Your task to perform on an android device: Go to wifi settings Image 0: 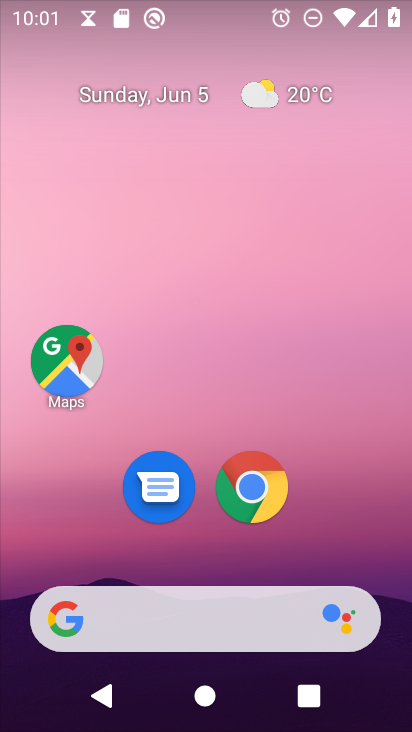
Step 0: drag from (353, 242) to (351, 201)
Your task to perform on an android device: Go to wifi settings Image 1: 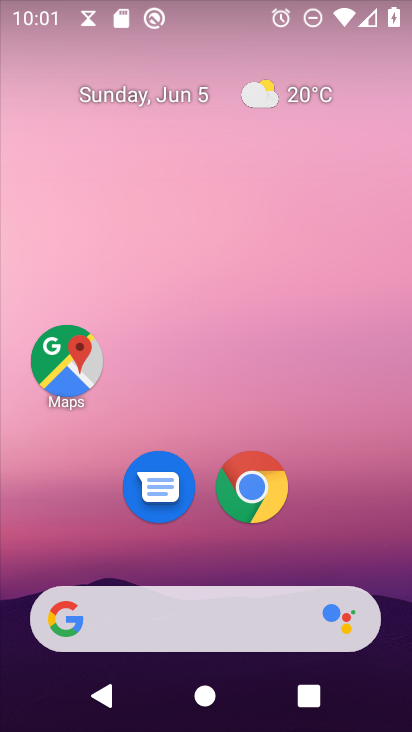
Step 1: drag from (228, 385) to (275, 103)
Your task to perform on an android device: Go to wifi settings Image 2: 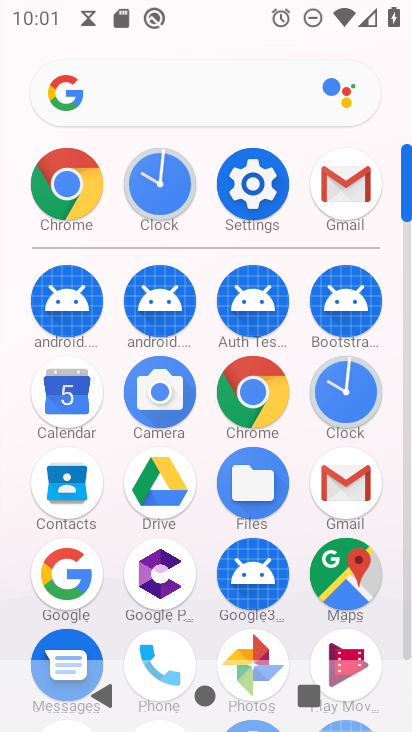
Step 2: click (253, 176)
Your task to perform on an android device: Go to wifi settings Image 3: 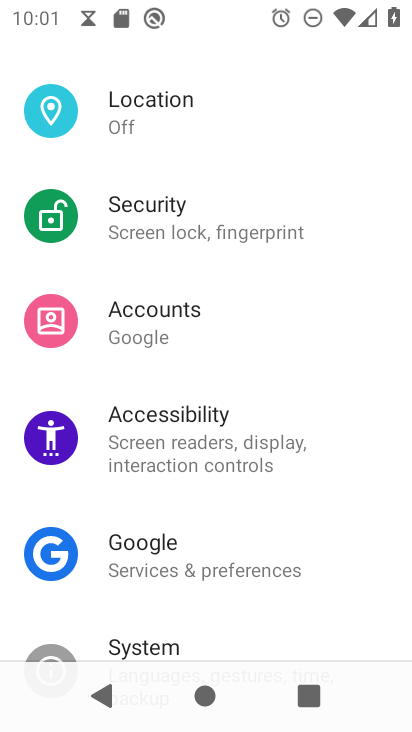
Step 3: drag from (193, 135) to (195, 604)
Your task to perform on an android device: Go to wifi settings Image 4: 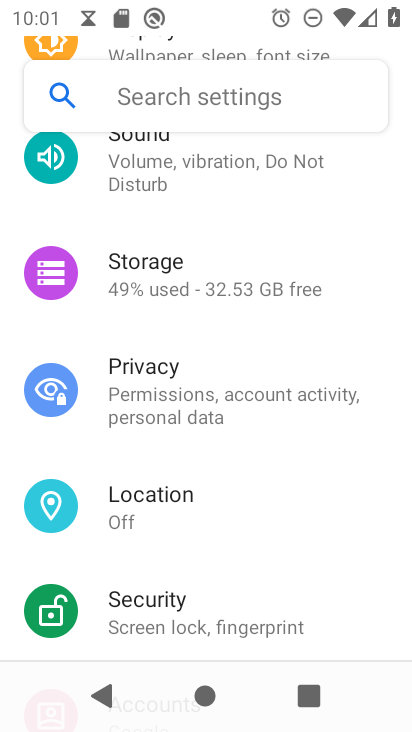
Step 4: drag from (199, 217) to (203, 586)
Your task to perform on an android device: Go to wifi settings Image 5: 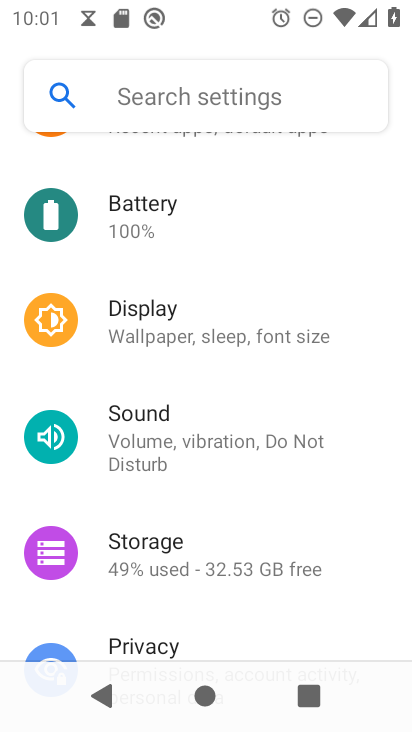
Step 5: drag from (172, 196) to (205, 589)
Your task to perform on an android device: Go to wifi settings Image 6: 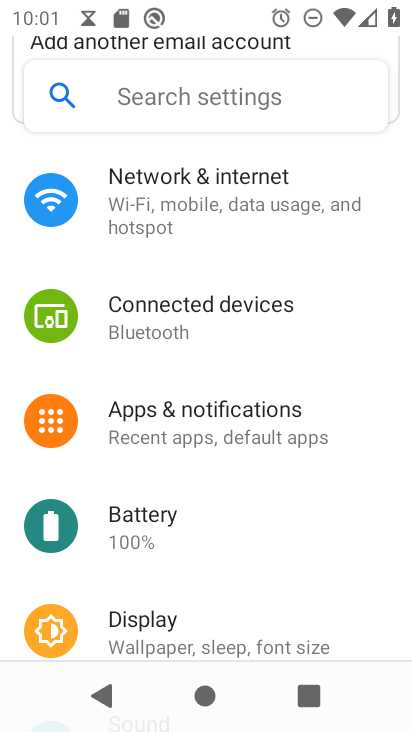
Step 6: click (230, 191)
Your task to perform on an android device: Go to wifi settings Image 7: 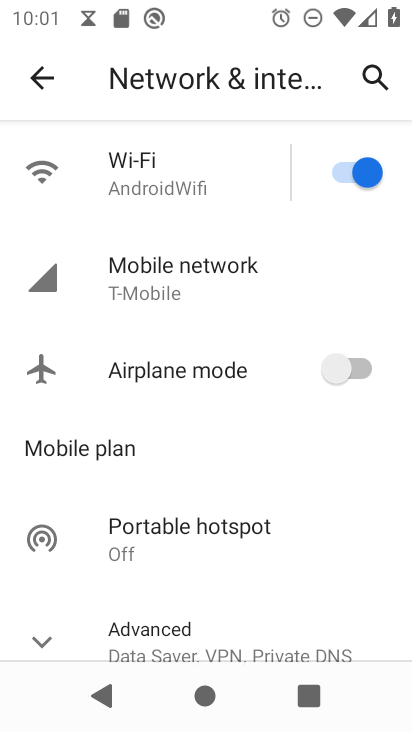
Step 7: click (224, 182)
Your task to perform on an android device: Go to wifi settings Image 8: 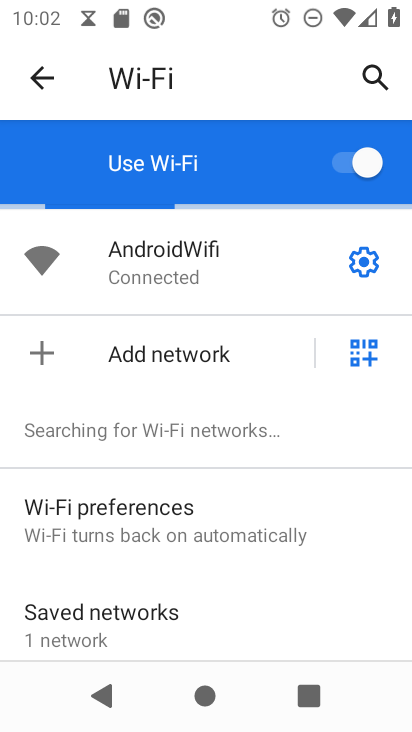
Step 8: task complete